Your task to perform on an android device: change the clock style Image 0: 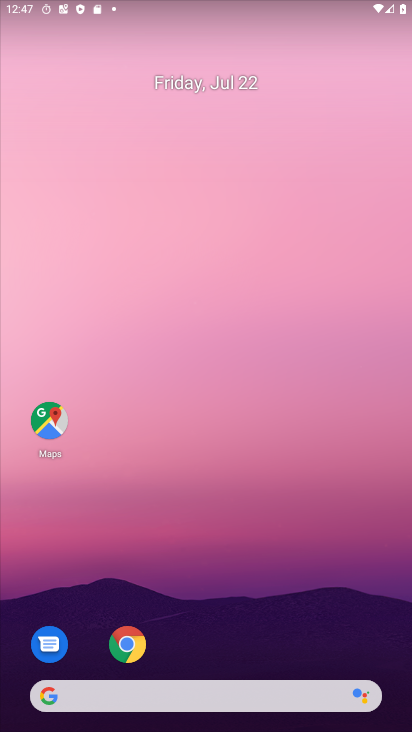
Step 0: drag from (276, 664) to (259, 40)
Your task to perform on an android device: change the clock style Image 1: 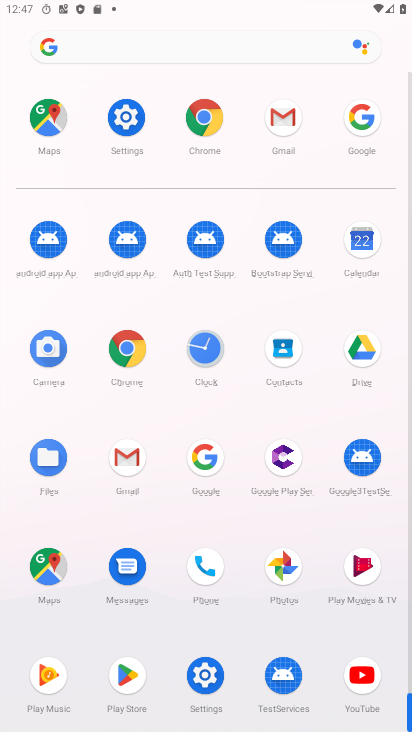
Step 1: click (216, 356)
Your task to perform on an android device: change the clock style Image 2: 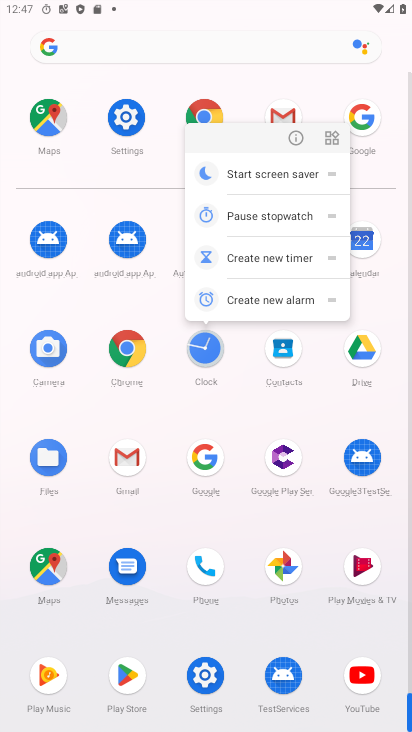
Step 2: click (196, 368)
Your task to perform on an android device: change the clock style Image 3: 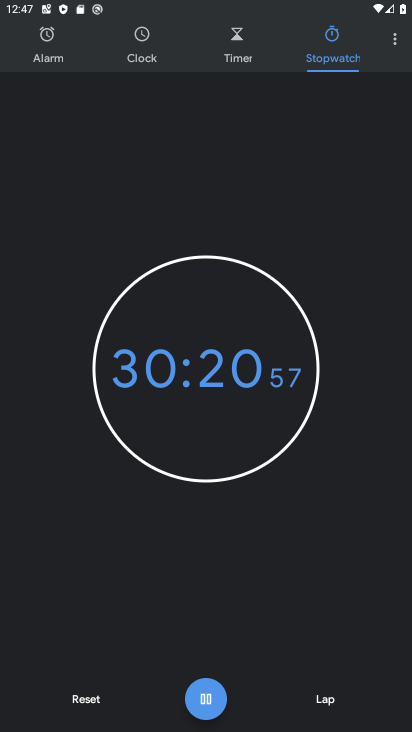
Step 3: click (395, 44)
Your task to perform on an android device: change the clock style Image 4: 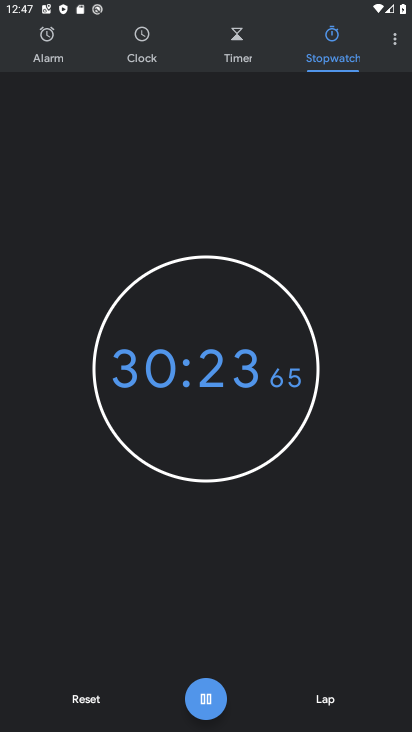
Step 4: click (397, 46)
Your task to perform on an android device: change the clock style Image 5: 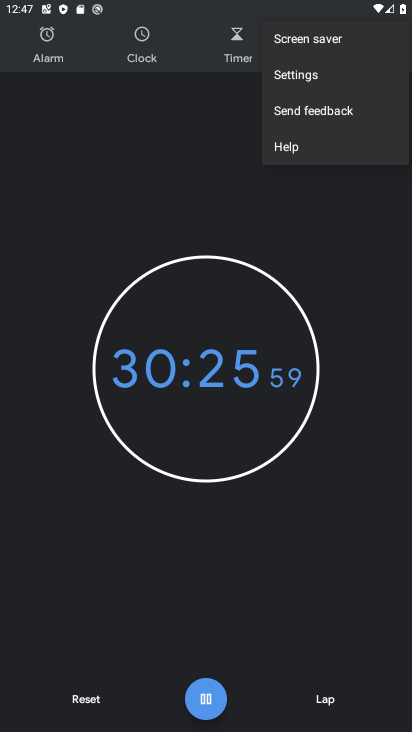
Step 5: click (340, 81)
Your task to perform on an android device: change the clock style Image 6: 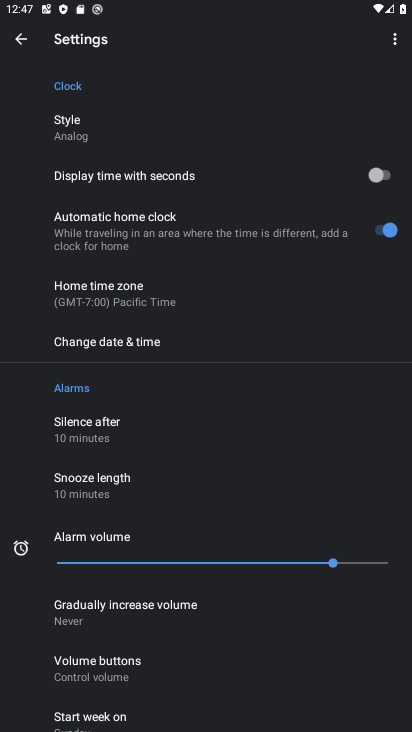
Step 6: click (136, 130)
Your task to perform on an android device: change the clock style Image 7: 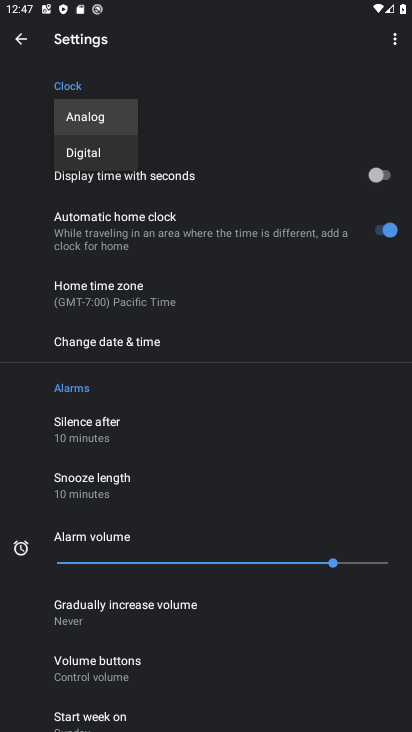
Step 7: click (104, 157)
Your task to perform on an android device: change the clock style Image 8: 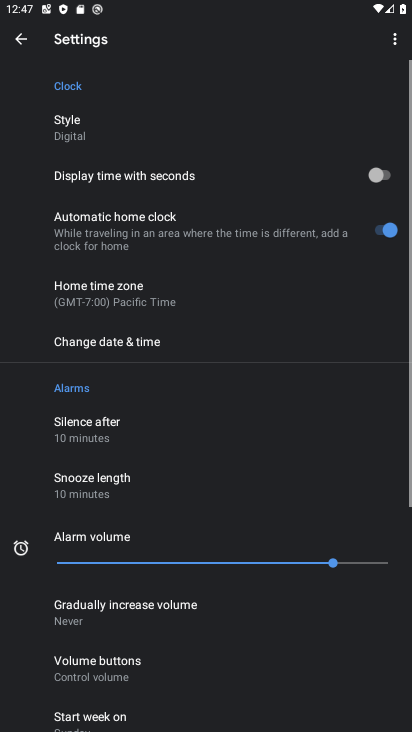
Step 8: task complete